Your task to perform on an android device: Check the weather Image 0: 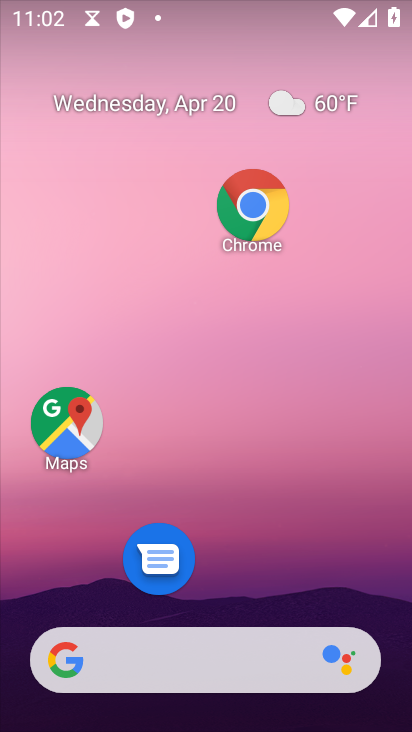
Step 0: drag from (267, 575) to (306, 120)
Your task to perform on an android device: Check the weather Image 1: 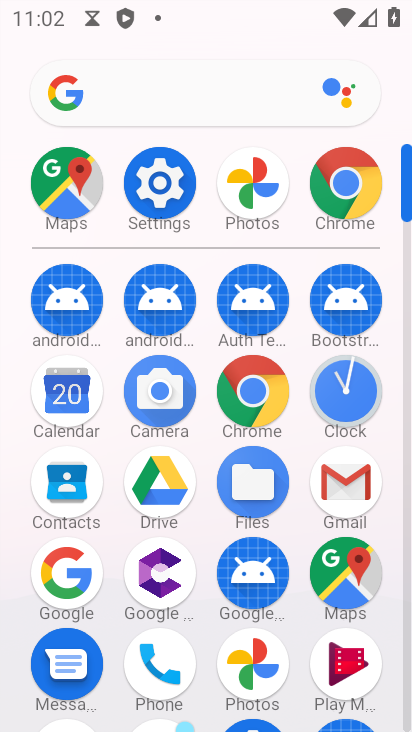
Step 1: click (276, 404)
Your task to perform on an android device: Check the weather Image 2: 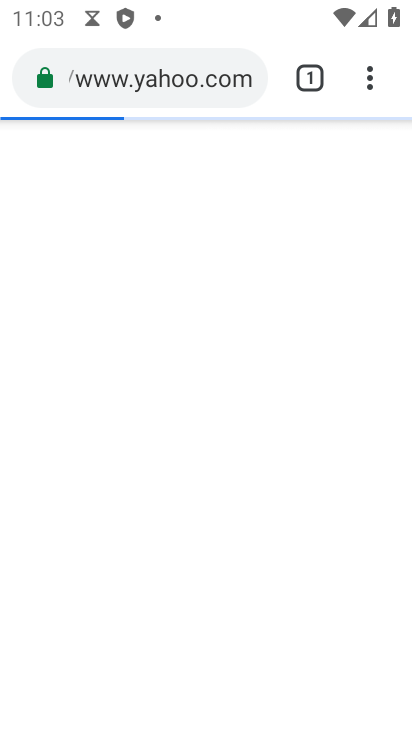
Step 2: click (222, 83)
Your task to perform on an android device: Check the weather Image 3: 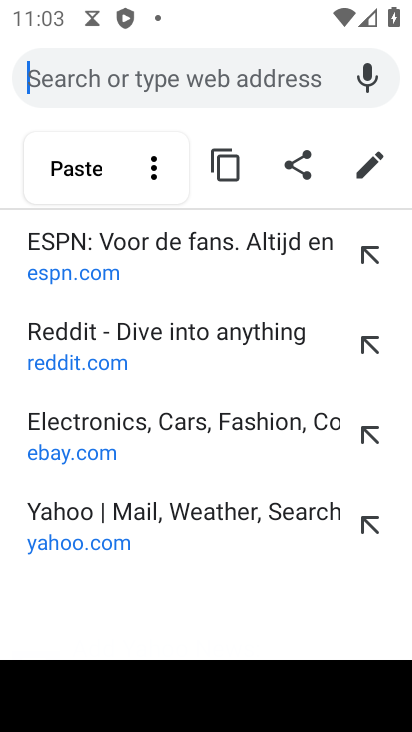
Step 3: type "weather"
Your task to perform on an android device: Check the weather Image 4: 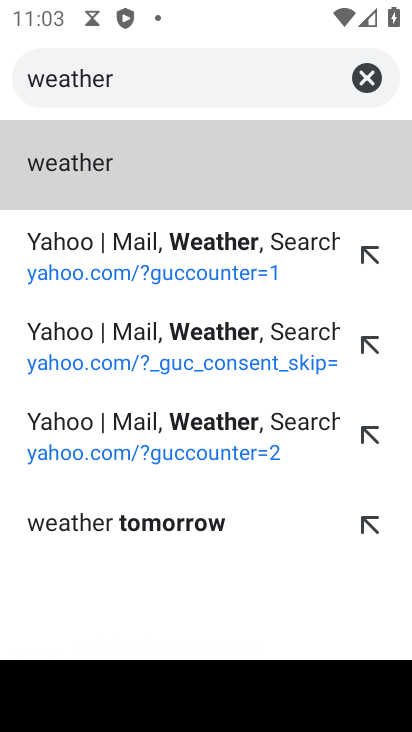
Step 4: click (44, 158)
Your task to perform on an android device: Check the weather Image 5: 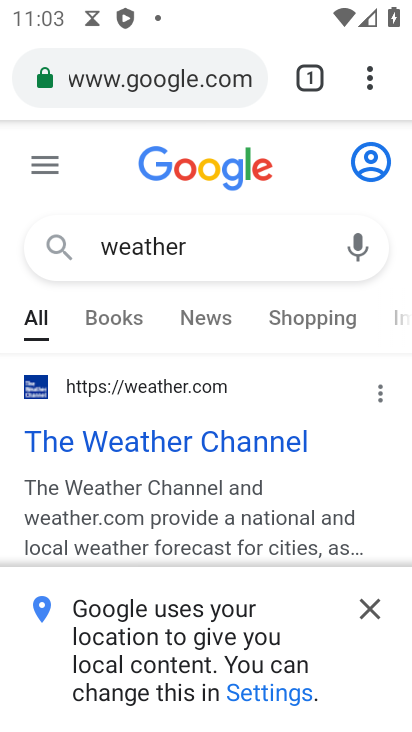
Step 5: task complete